Your task to perform on an android device: Search for Italian restaurants on Maps Image 0: 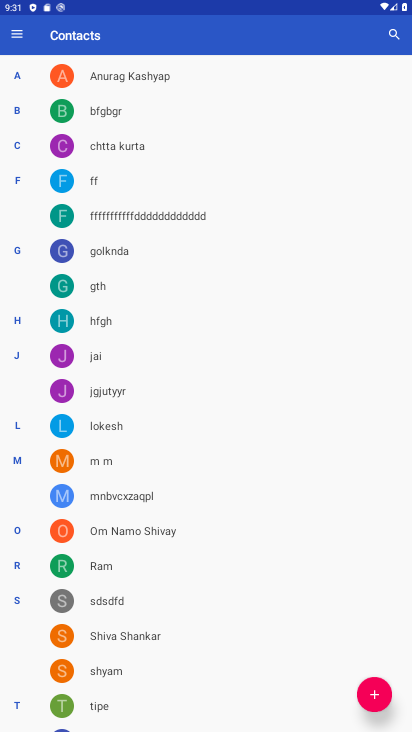
Step 0: press home button
Your task to perform on an android device: Search for Italian restaurants on Maps Image 1: 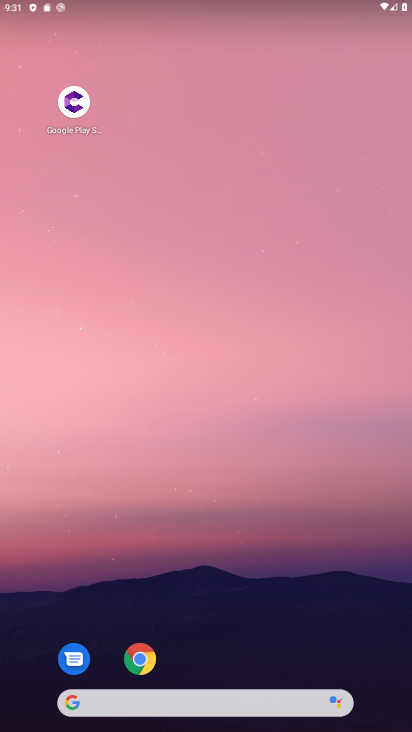
Step 1: drag from (40, 365) to (400, 339)
Your task to perform on an android device: Search for Italian restaurants on Maps Image 2: 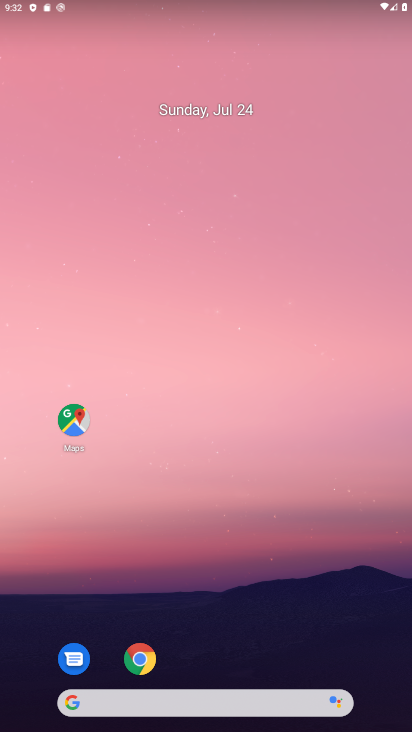
Step 2: click (70, 412)
Your task to perform on an android device: Search for Italian restaurants on Maps Image 3: 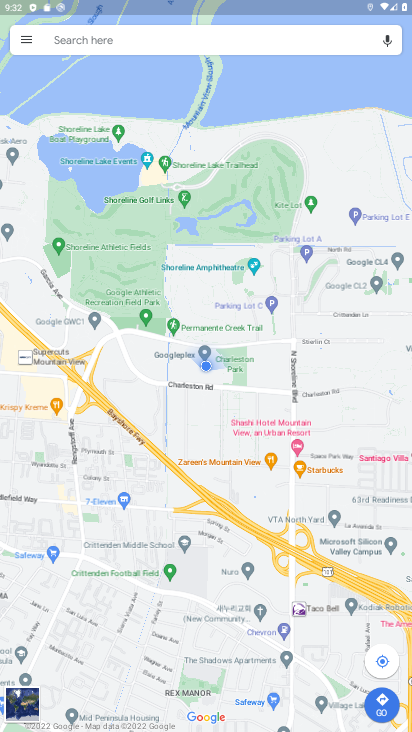
Step 3: click (153, 46)
Your task to perform on an android device: Search for Italian restaurants on Maps Image 4: 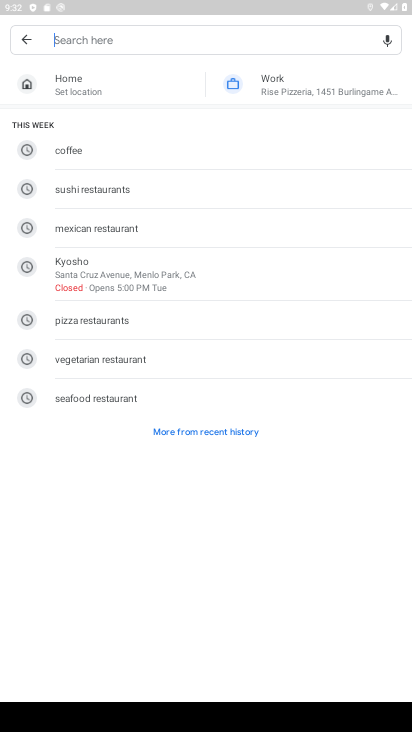
Step 4: type "Italian restaurants"
Your task to perform on an android device: Search for Italian restaurants on Maps Image 5: 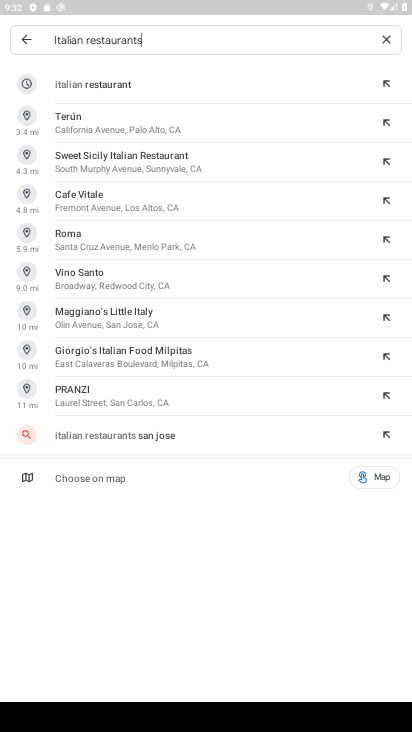
Step 5: click (124, 83)
Your task to perform on an android device: Search for Italian restaurants on Maps Image 6: 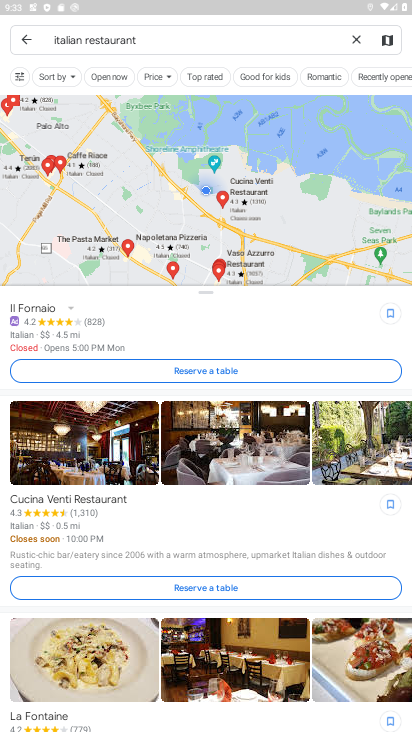
Step 6: task complete